Your task to perform on an android device: Open Chrome and go to settings Image 0: 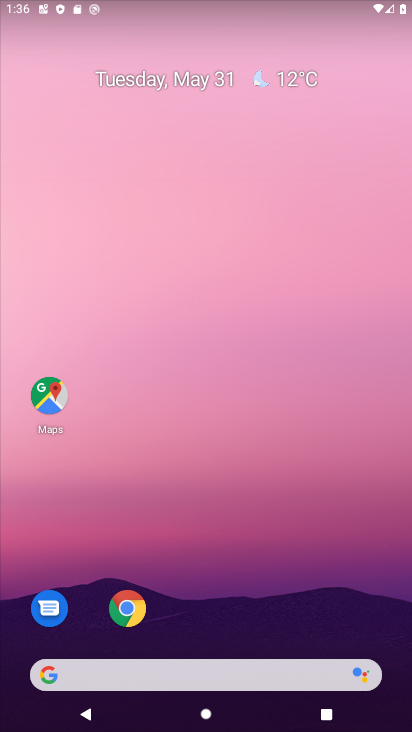
Step 0: drag from (281, 608) to (283, 207)
Your task to perform on an android device: Open Chrome and go to settings Image 1: 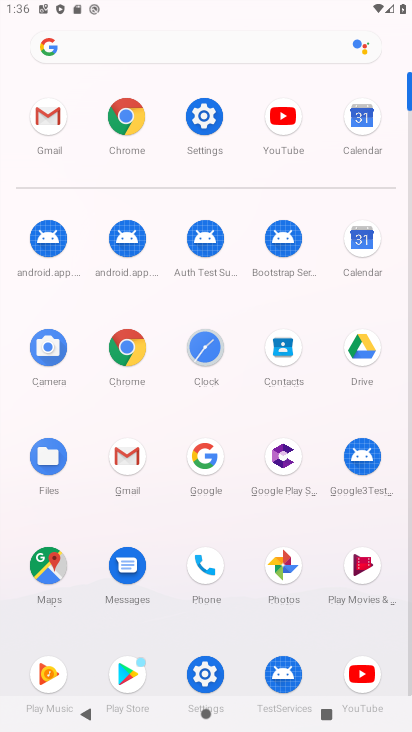
Step 1: click (123, 351)
Your task to perform on an android device: Open Chrome and go to settings Image 2: 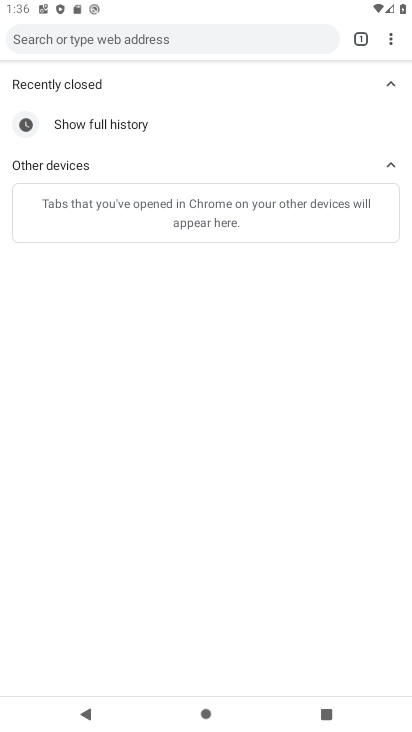
Step 2: task complete